Your task to perform on an android device: What's the weather? Image 0: 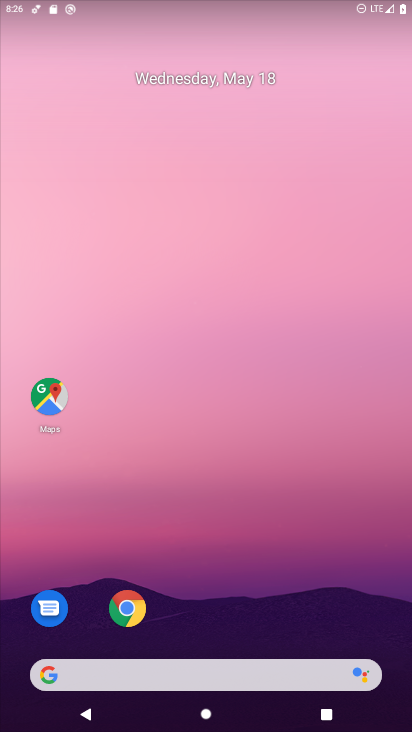
Step 0: drag from (295, 634) to (286, 566)
Your task to perform on an android device: What's the weather? Image 1: 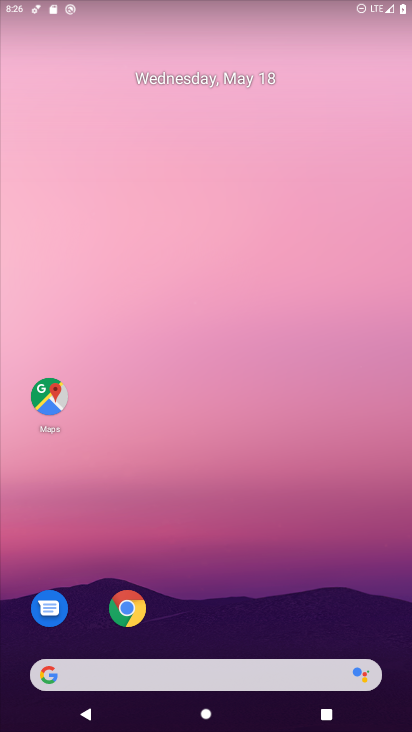
Step 1: drag from (0, 196) to (384, 169)
Your task to perform on an android device: What's the weather? Image 2: 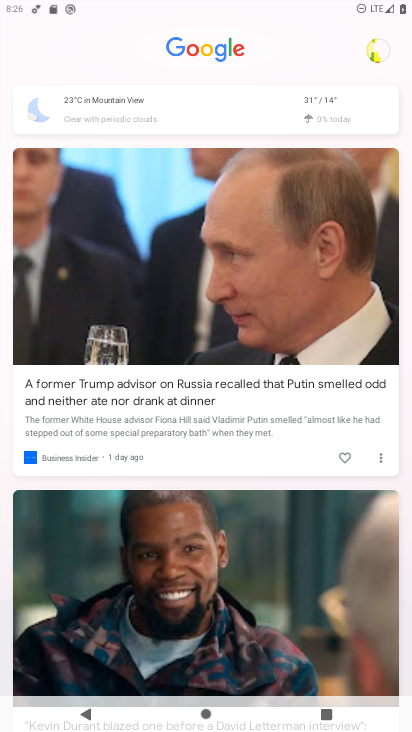
Step 2: click (291, 108)
Your task to perform on an android device: What's the weather? Image 3: 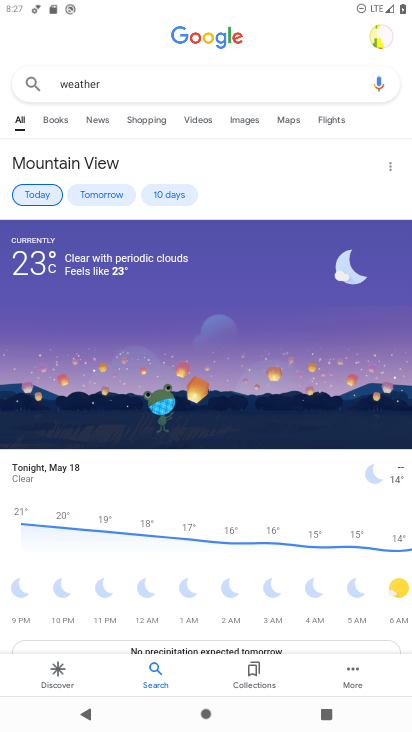
Step 3: task complete